Your task to perform on an android device: Show me productivity apps on the Play Store Image 0: 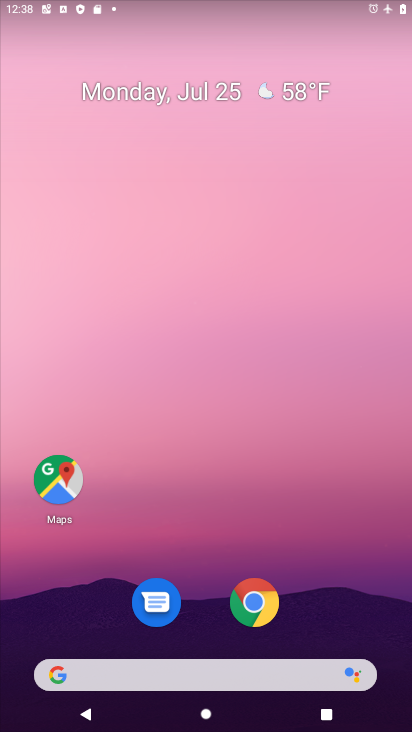
Step 0: drag from (213, 380) to (229, 80)
Your task to perform on an android device: Show me productivity apps on the Play Store Image 1: 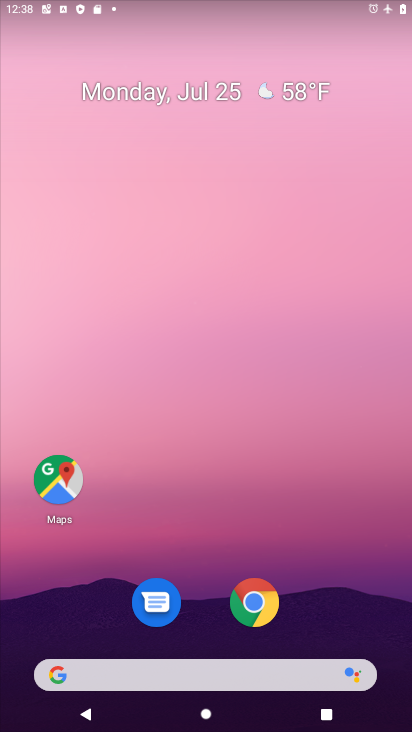
Step 1: drag from (206, 559) to (189, 54)
Your task to perform on an android device: Show me productivity apps on the Play Store Image 2: 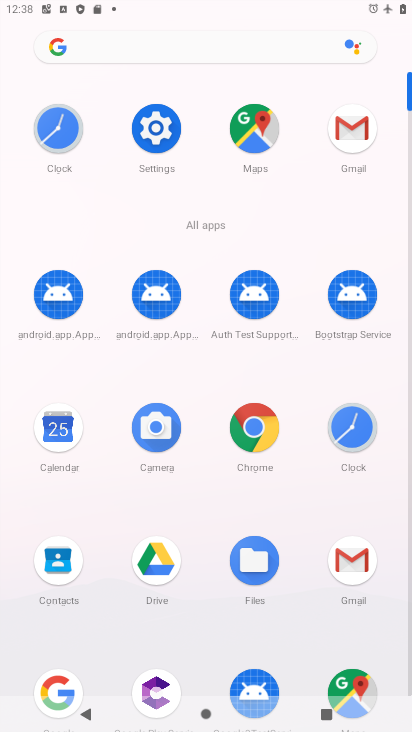
Step 2: drag from (218, 595) to (239, 188)
Your task to perform on an android device: Show me productivity apps on the Play Store Image 3: 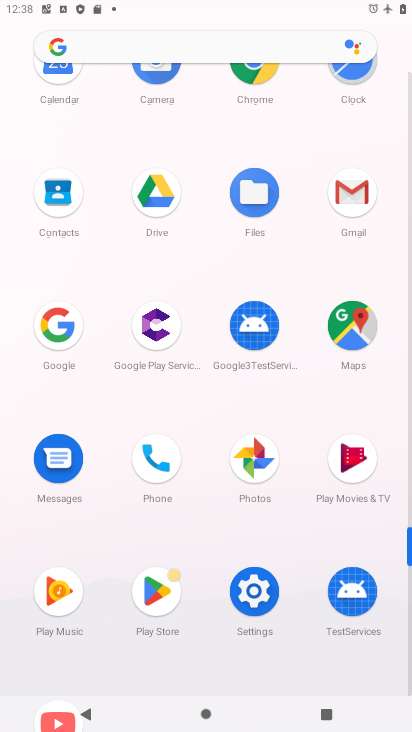
Step 3: click (168, 626)
Your task to perform on an android device: Show me productivity apps on the Play Store Image 4: 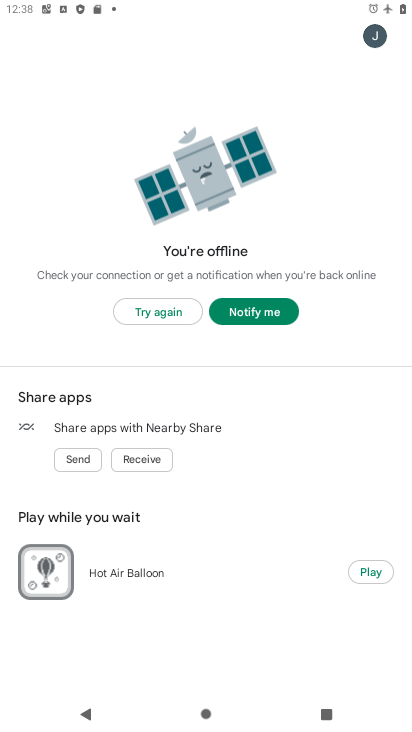
Step 4: task complete